Your task to perform on an android device: uninstall "Upside-Cash back on gas & food" Image 0: 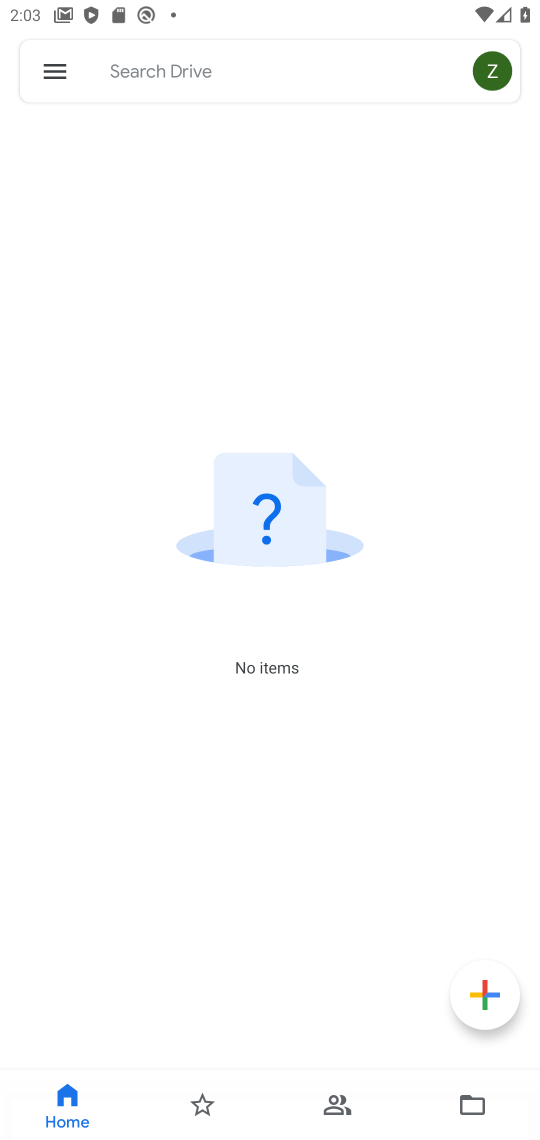
Step 0: press home button
Your task to perform on an android device: uninstall "Upside-Cash back on gas & food" Image 1: 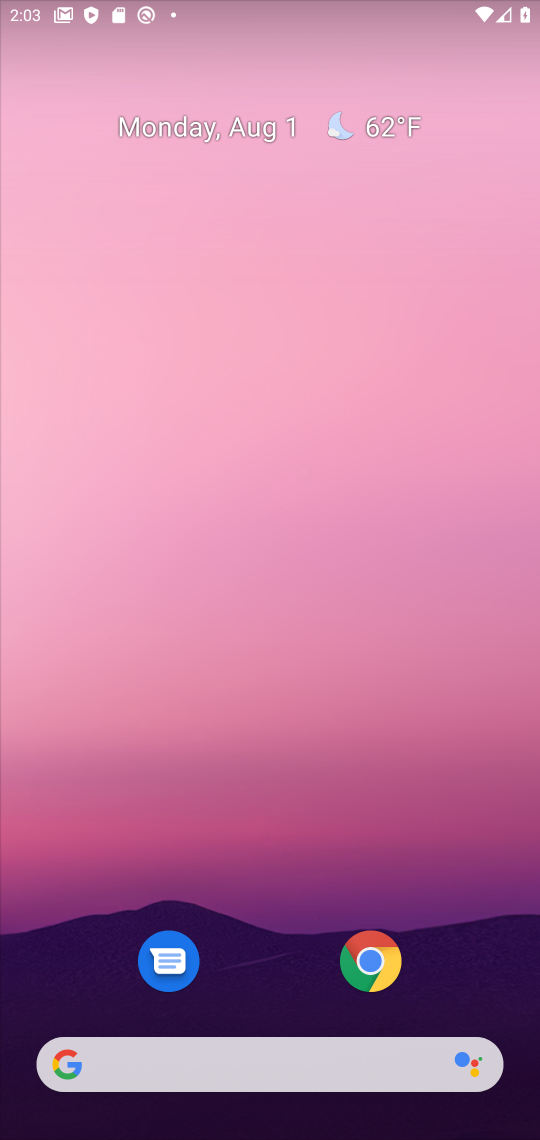
Step 1: drag from (416, 842) to (383, 192)
Your task to perform on an android device: uninstall "Upside-Cash back on gas & food" Image 2: 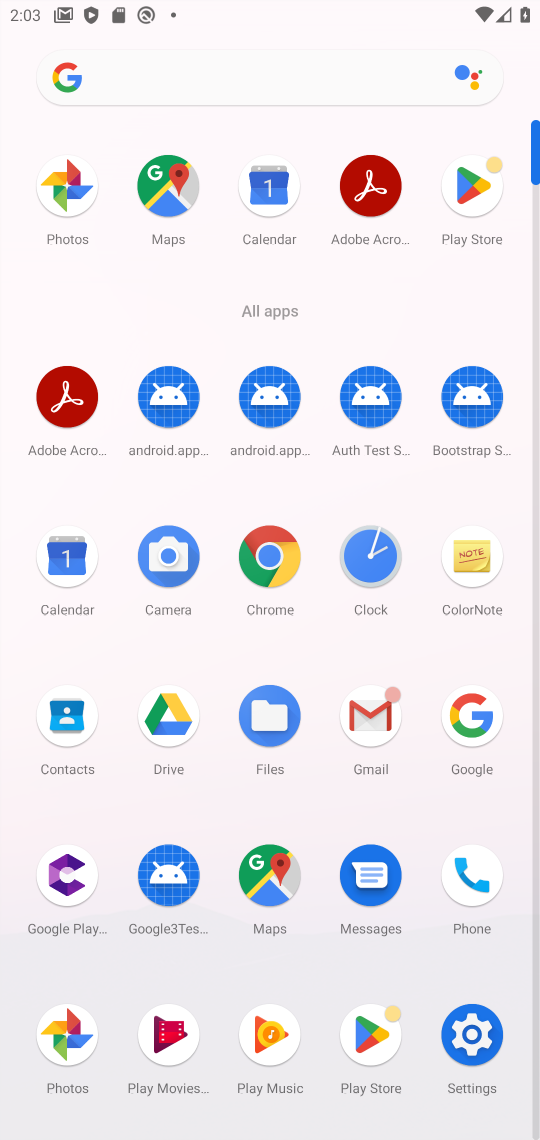
Step 2: click (484, 204)
Your task to perform on an android device: uninstall "Upside-Cash back on gas & food" Image 3: 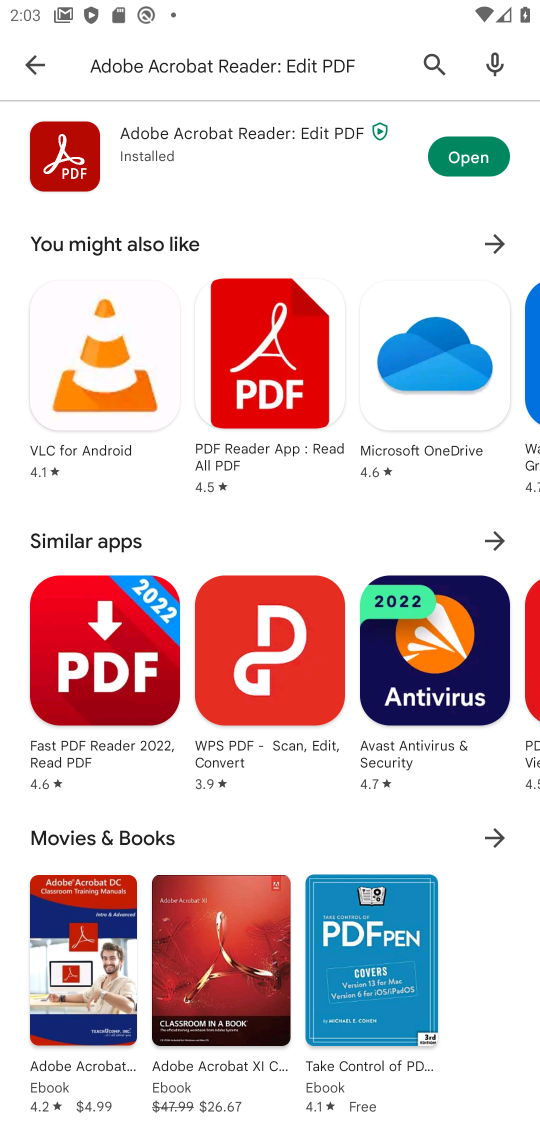
Step 3: click (355, 56)
Your task to perform on an android device: uninstall "Upside-Cash back on gas & food" Image 4: 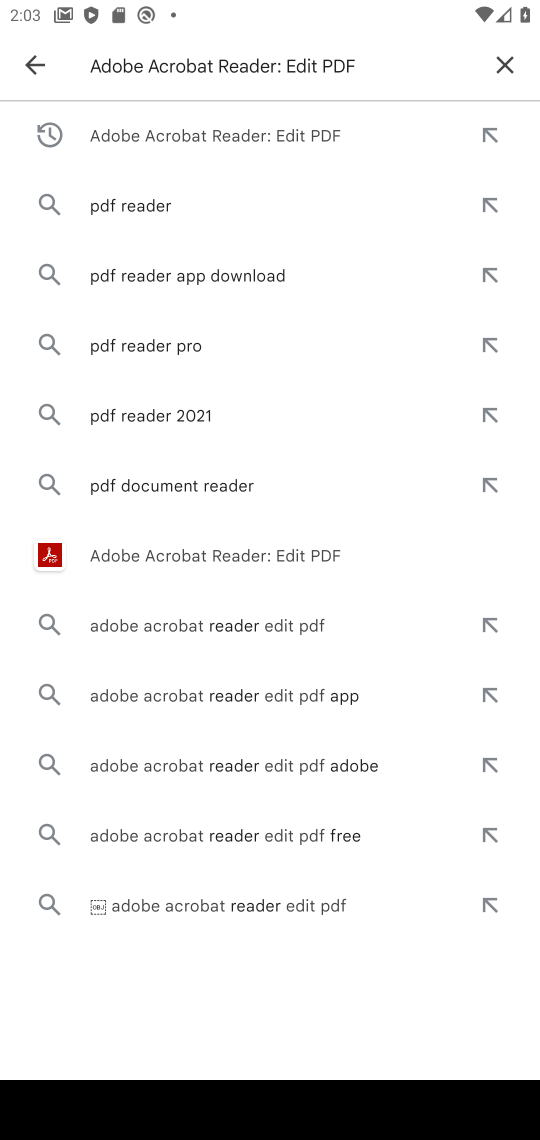
Step 4: click (512, 55)
Your task to perform on an android device: uninstall "Upside-Cash back on gas & food" Image 5: 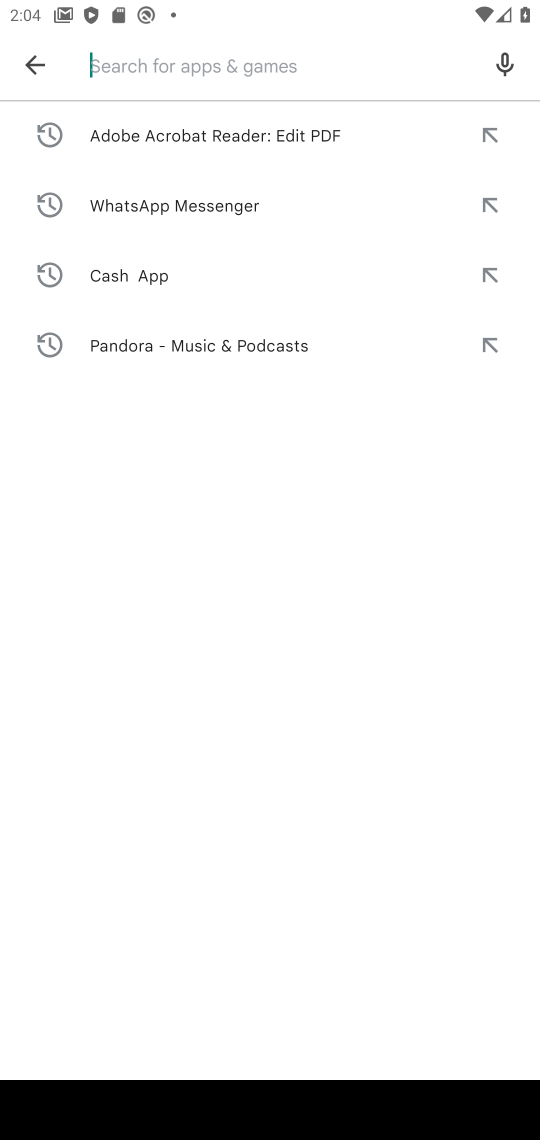
Step 5: type "Upside-Cash back on gas& food"
Your task to perform on an android device: uninstall "Upside-Cash back on gas & food" Image 6: 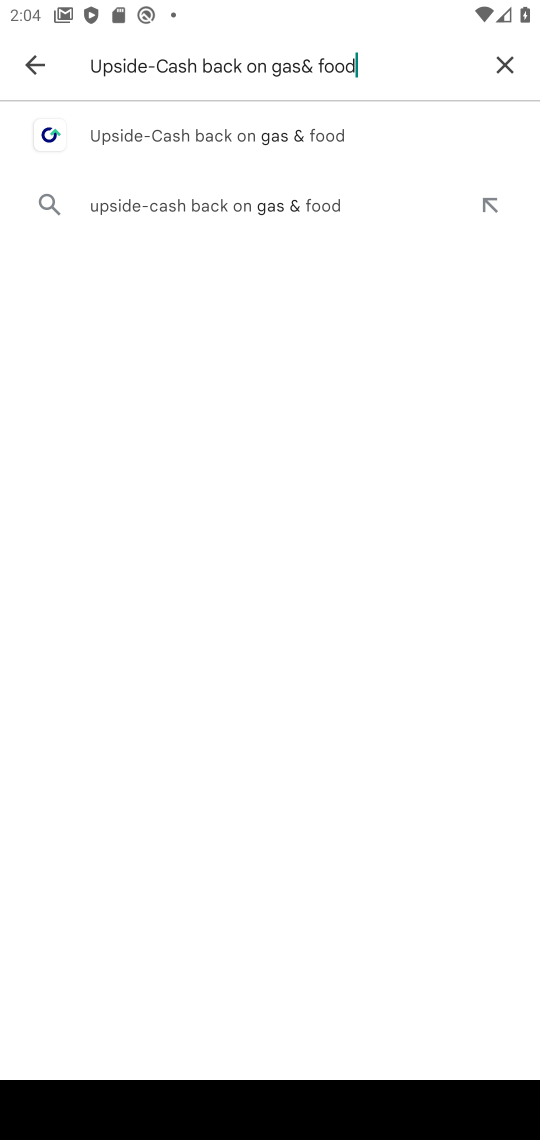
Step 6: press enter
Your task to perform on an android device: uninstall "Upside-Cash back on gas & food" Image 7: 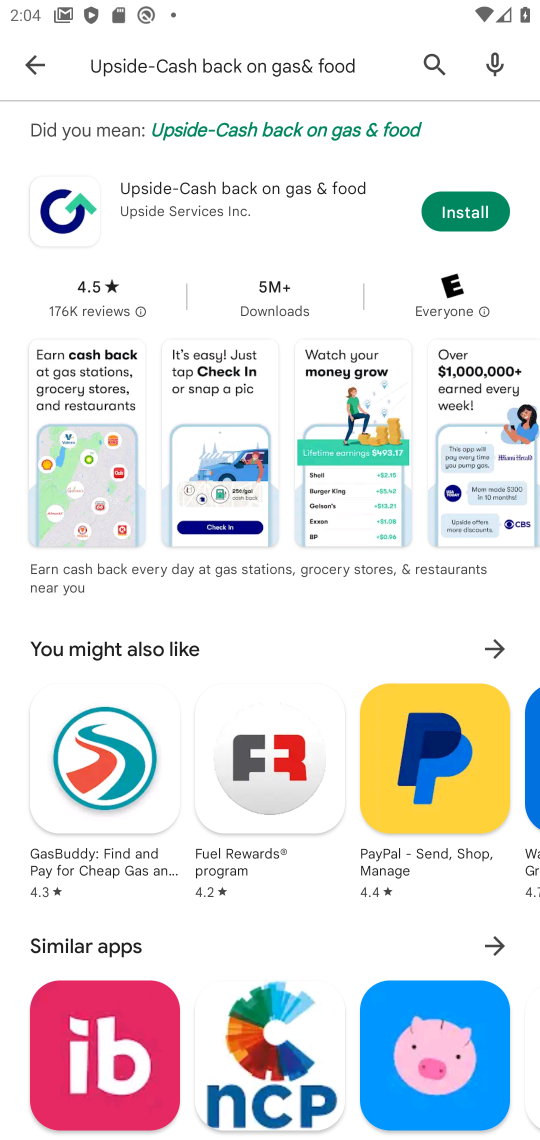
Step 7: click (284, 183)
Your task to perform on an android device: uninstall "Upside-Cash back on gas & food" Image 8: 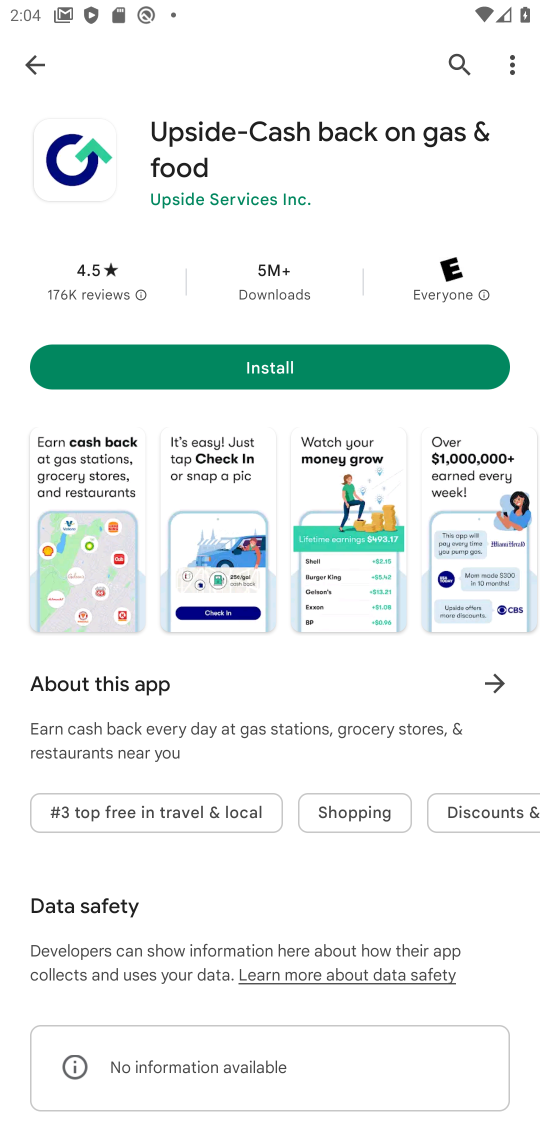
Step 8: task complete